Your task to perform on an android device: remove spam from my inbox in the gmail app Image 0: 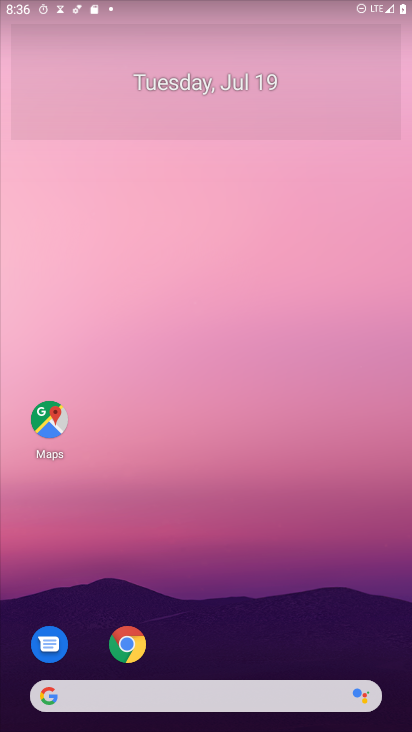
Step 0: drag from (89, 525) to (302, 0)
Your task to perform on an android device: remove spam from my inbox in the gmail app Image 1: 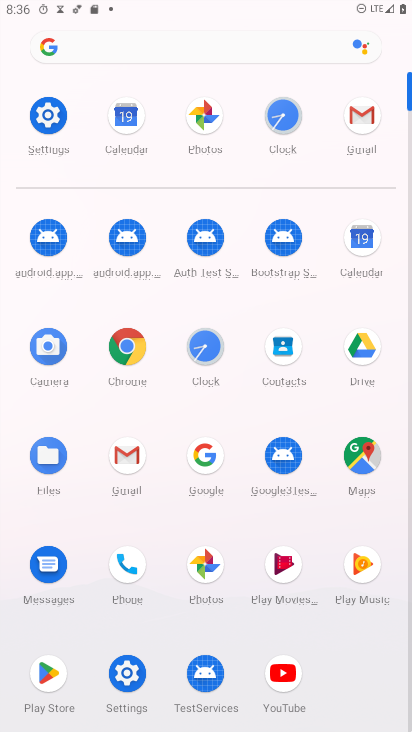
Step 1: click (119, 459)
Your task to perform on an android device: remove spam from my inbox in the gmail app Image 2: 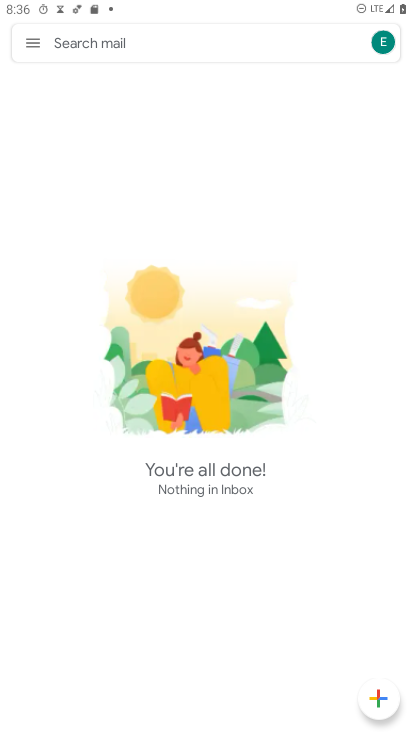
Step 2: click (30, 40)
Your task to perform on an android device: remove spam from my inbox in the gmail app Image 3: 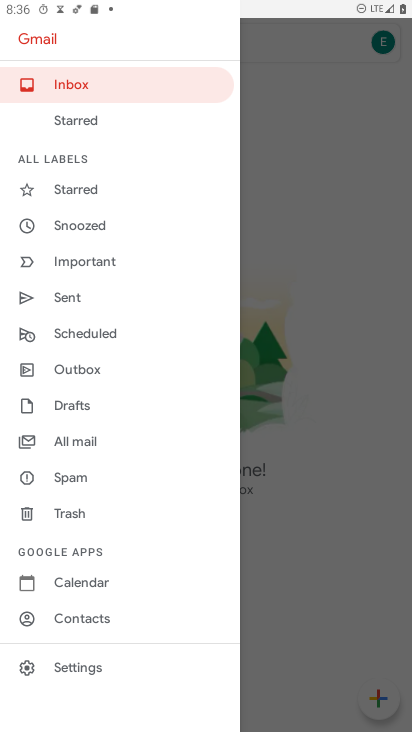
Step 3: click (78, 481)
Your task to perform on an android device: remove spam from my inbox in the gmail app Image 4: 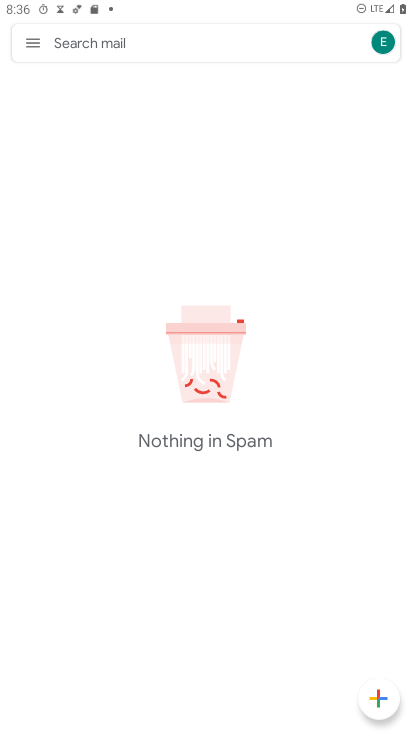
Step 4: task complete